Your task to perform on an android device: Open the calendar app Image 0: 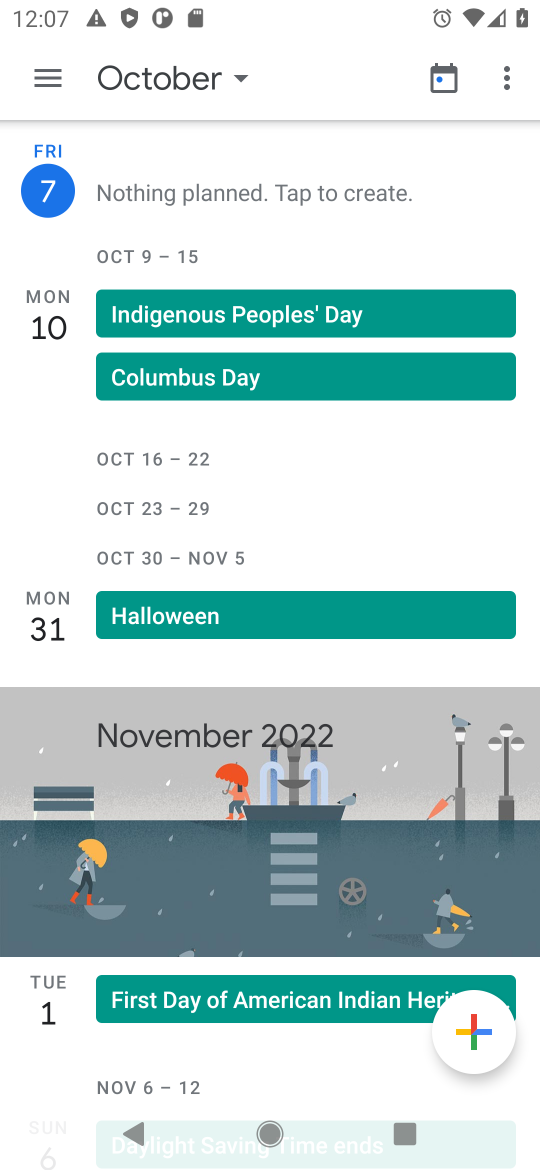
Step 0: press home button
Your task to perform on an android device: Open the calendar app Image 1: 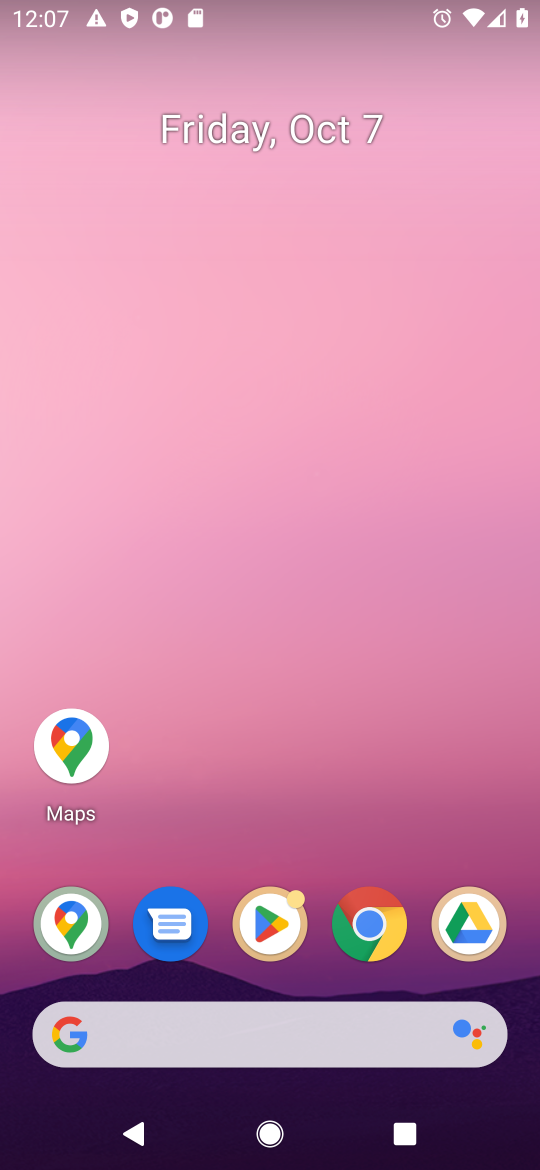
Step 1: drag from (282, 1039) to (344, 214)
Your task to perform on an android device: Open the calendar app Image 2: 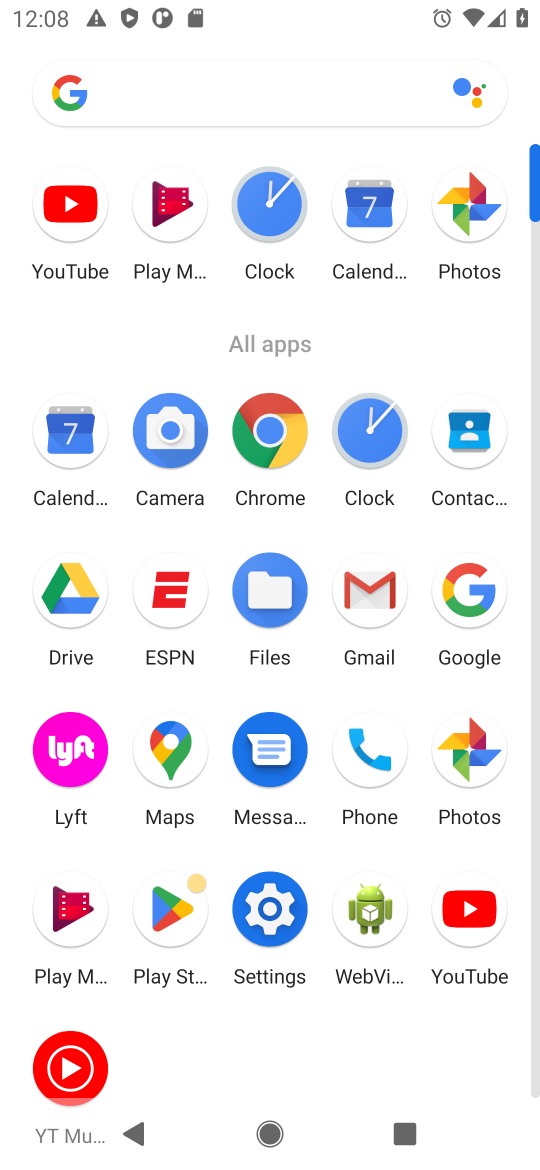
Step 2: click (76, 442)
Your task to perform on an android device: Open the calendar app Image 3: 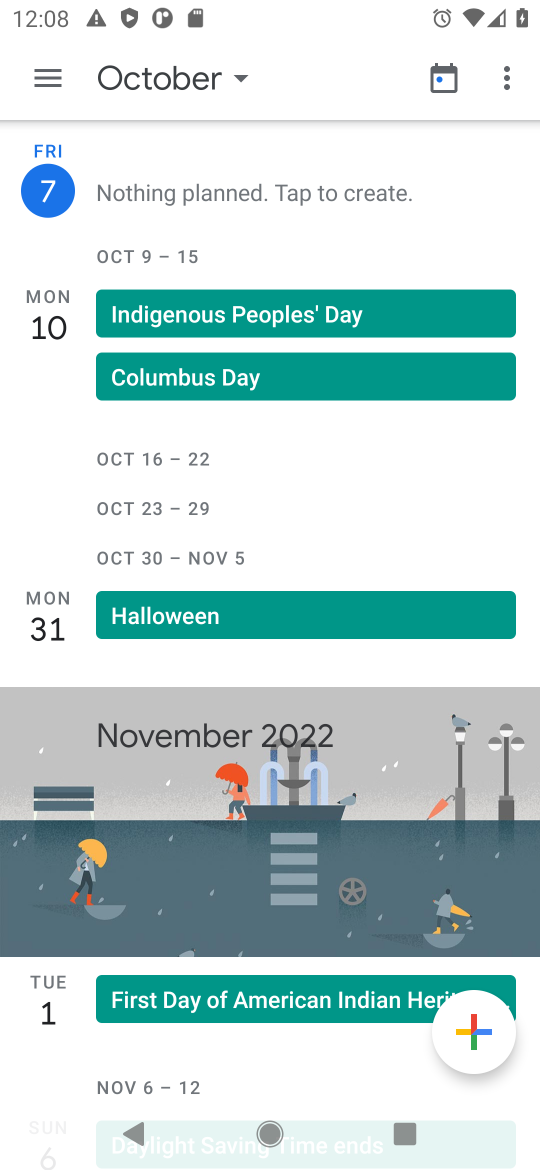
Step 3: click (118, 79)
Your task to perform on an android device: Open the calendar app Image 4: 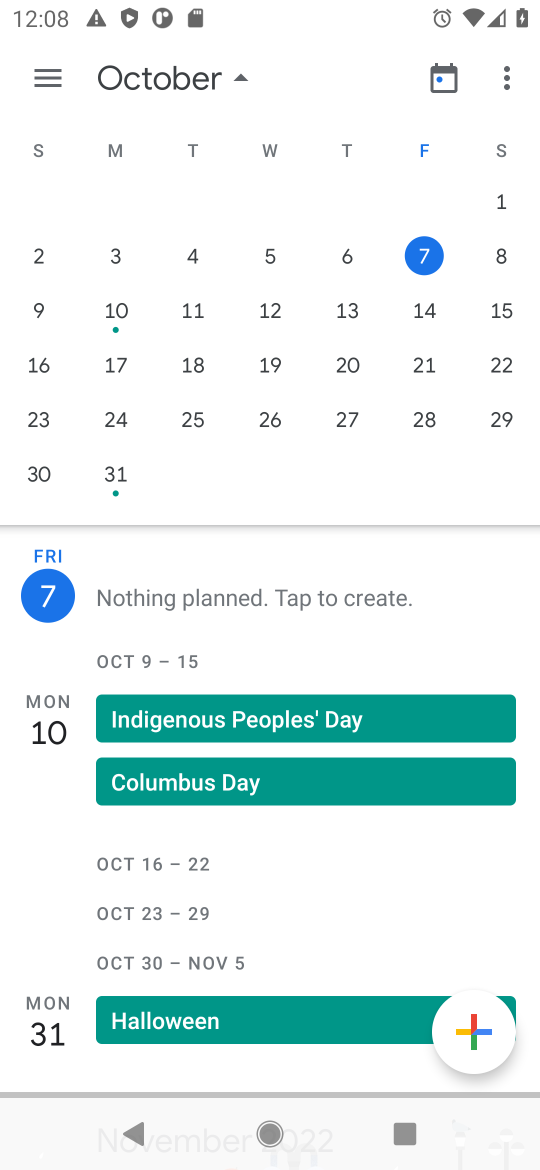
Step 4: task complete